Your task to perform on an android device: Open Wikipedia Image 0: 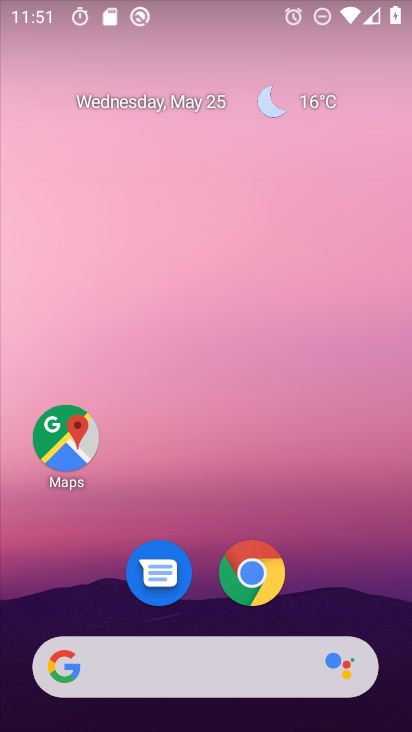
Step 0: click (254, 577)
Your task to perform on an android device: Open Wikipedia Image 1: 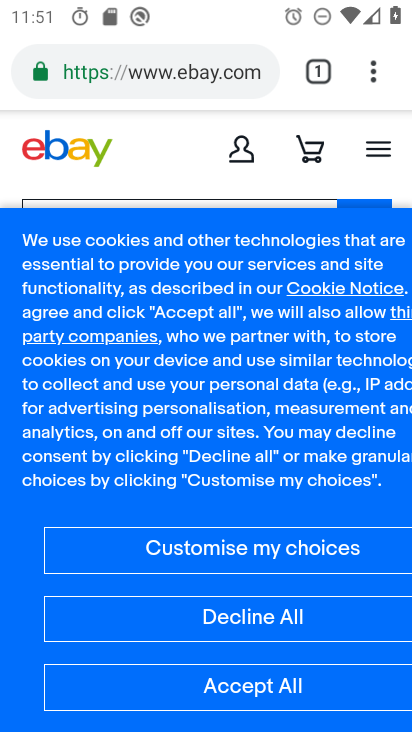
Step 1: click (113, 76)
Your task to perform on an android device: Open Wikipedia Image 2: 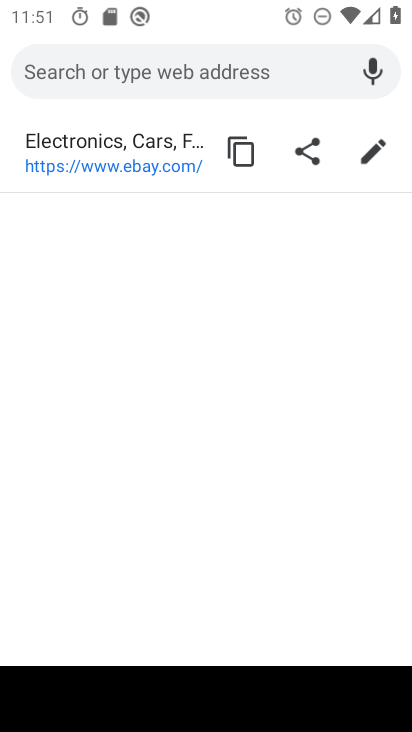
Step 2: type "wikipedia"
Your task to perform on an android device: Open Wikipedia Image 3: 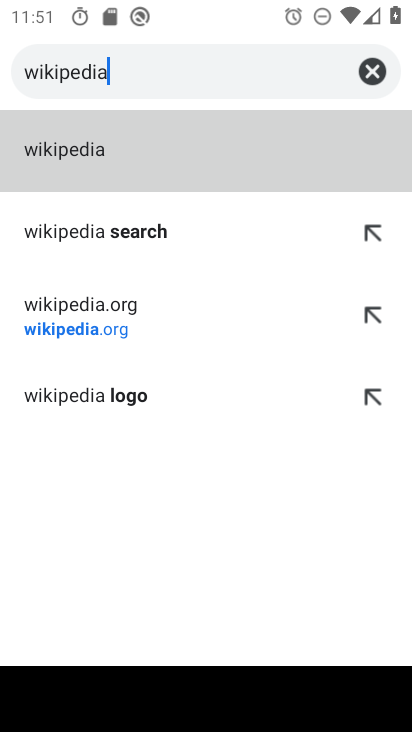
Step 3: click (56, 159)
Your task to perform on an android device: Open Wikipedia Image 4: 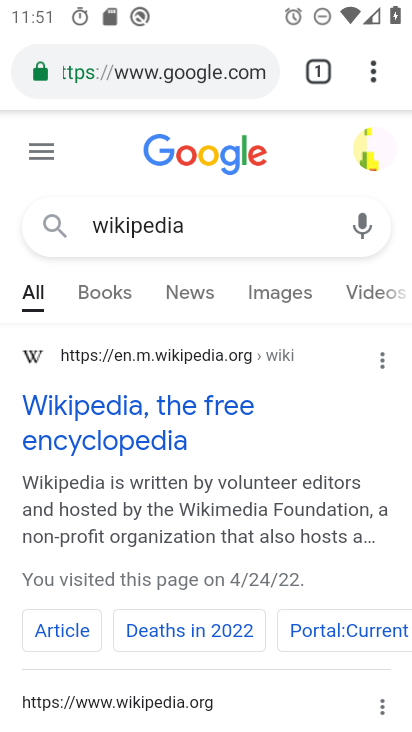
Step 4: click (93, 409)
Your task to perform on an android device: Open Wikipedia Image 5: 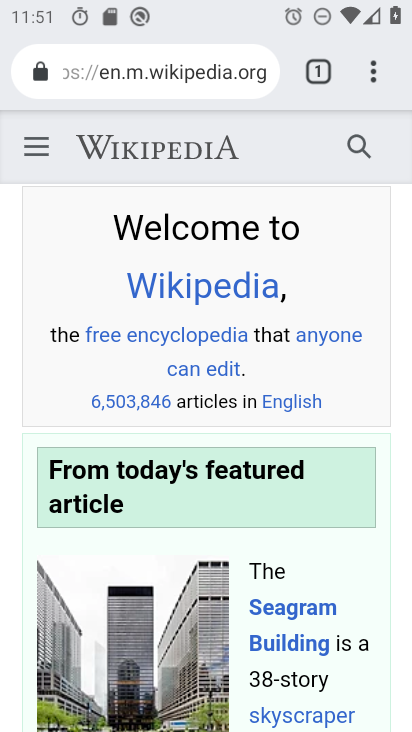
Step 5: task complete